Your task to perform on an android device: Where can I buy a nice beach tote? Image 0: 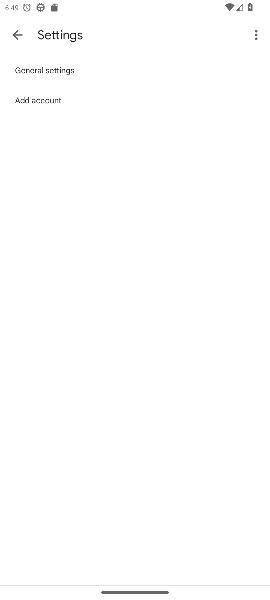
Step 0: click (23, 29)
Your task to perform on an android device: Where can I buy a nice beach tote? Image 1: 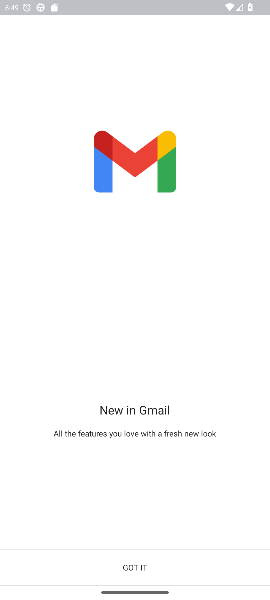
Step 1: press home button
Your task to perform on an android device: Where can I buy a nice beach tote? Image 2: 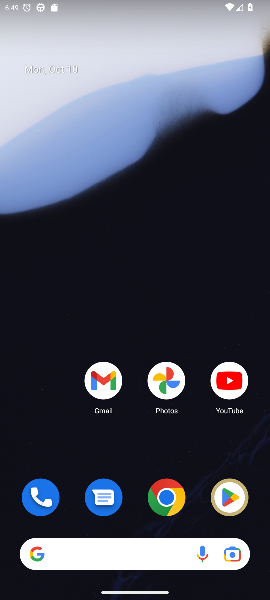
Step 2: drag from (110, 479) to (133, 247)
Your task to perform on an android device: Where can I buy a nice beach tote? Image 3: 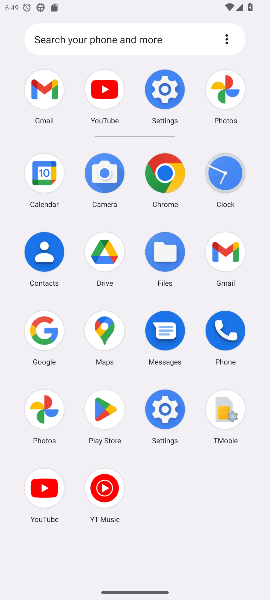
Step 3: click (51, 324)
Your task to perform on an android device: Where can I buy a nice beach tote? Image 4: 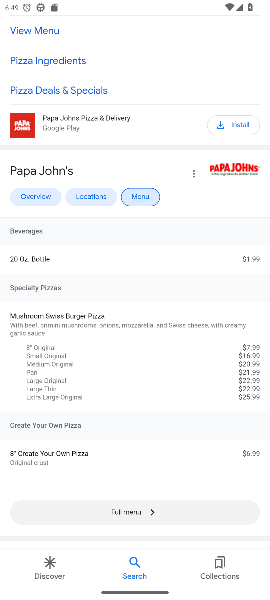
Step 4: drag from (136, 66) to (127, 393)
Your task to perform on an android device: Where can I buy a nice beach tote? Image 5: 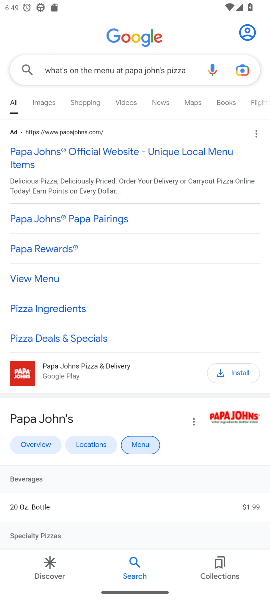
Step 5: click (162, 61)
Your task to perform on an android device: Where can I buy a nice beach tote? Image 6: 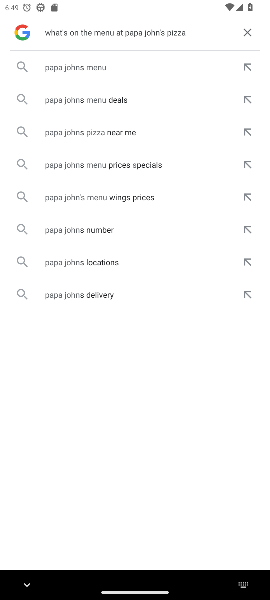
Step 6: click (252, 25)
Your task to perform on an android device: Where can I buy a nice beach tote? Image 7: 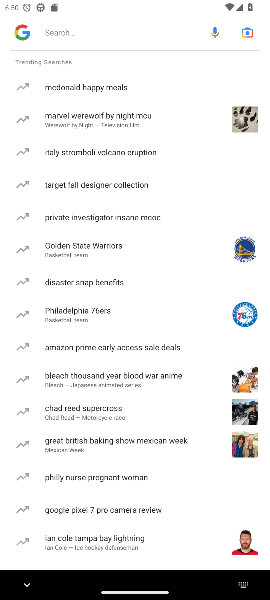
Step 7: click (124, 25)
Your task to perform on an android device: Where can I buy a nice beach tote? Image 8: 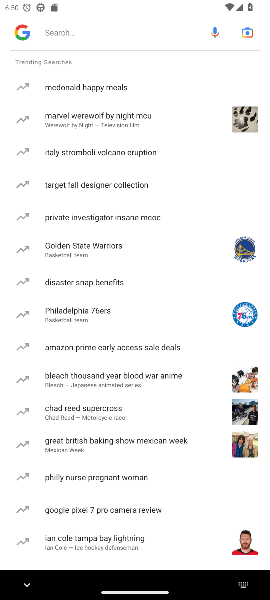
Step 8: type "Where can I buy a nice beach tote? "
Your task to perform on an android device: Where can I buy a nice beach tote? Image 9: 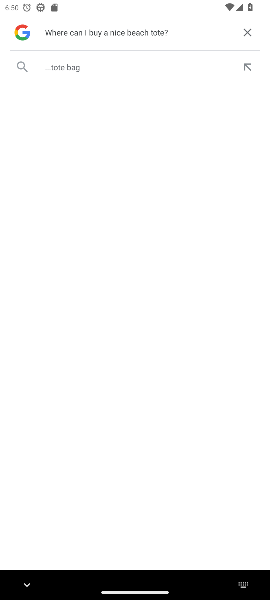
Step 9: click (64, 71)
Your task to perform on an android device: Where can I buy a nice beach tote? Image 10: 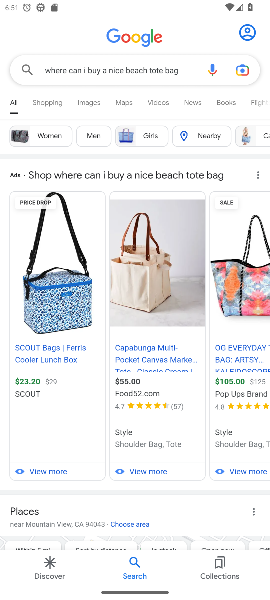
Step 10: task complete